Your task to perform on an android device: What's on my calendar today? Image 0: 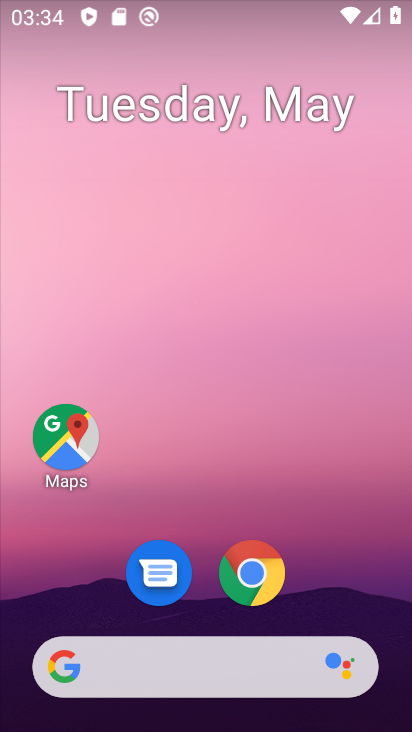
Step 0: drag from (225, 572) to (215, 99)
Your task to perform on an android device: What's on my calendar today? Image 1: 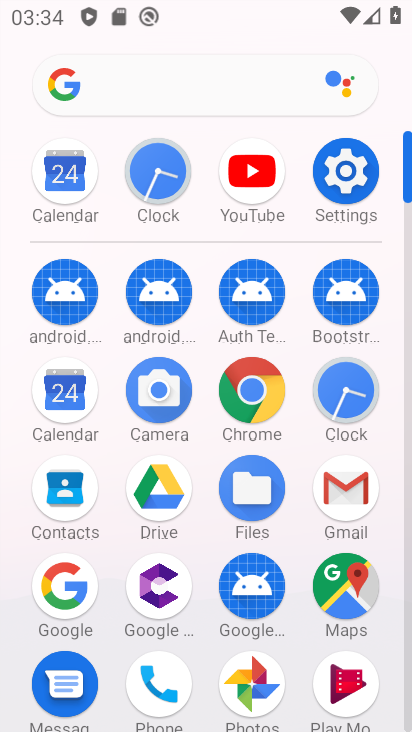
Step 1: click (60, 387)
Your task to perform on an android device: What's on my calendar today? Image 2: 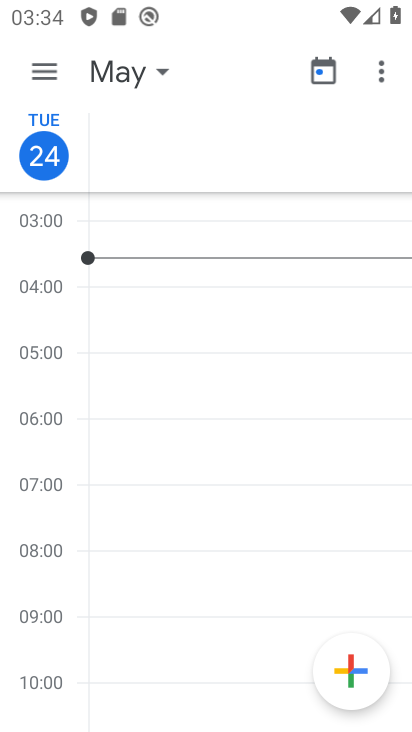
Step 2: click (53, 64)
Your task to perform on an android device: What's on my calendar today? Image 3: 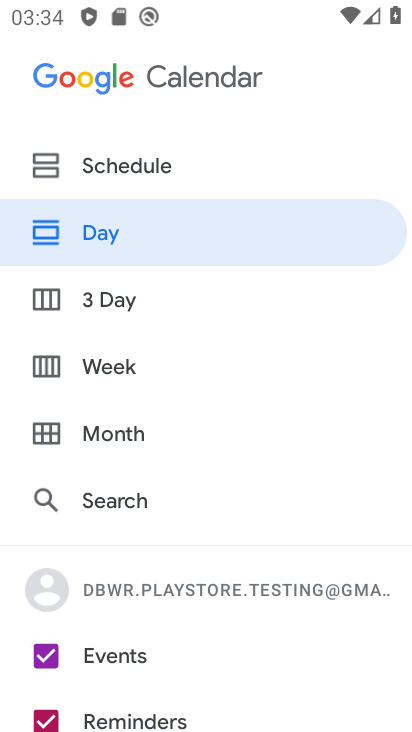
Step 3: click (126, 155)
Your task to perform on an android device: What's on my calendar today? Image 4: 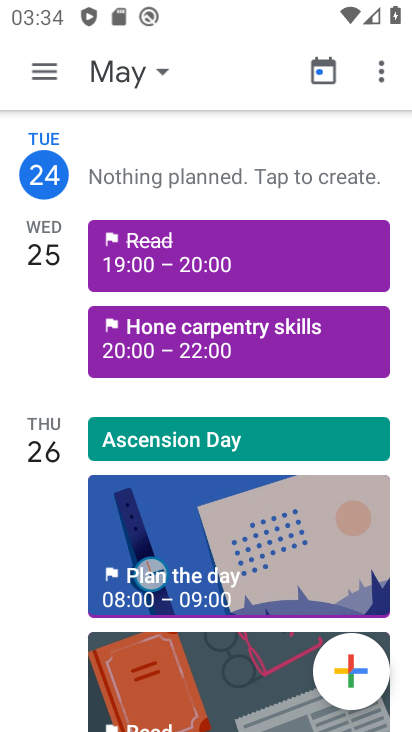
Step 4: task complete